Your task to perform on an android device: Go to location settings Image 0: 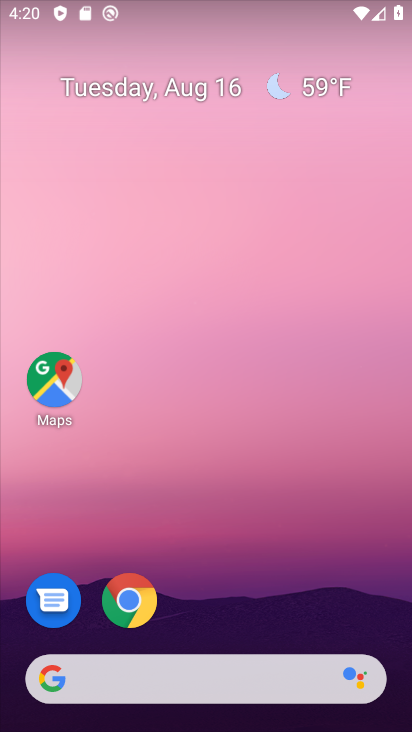
Step 0: drag from (210, 640) to (339, 0)
Your task to perform on an android device: Go to location settings Image 1: 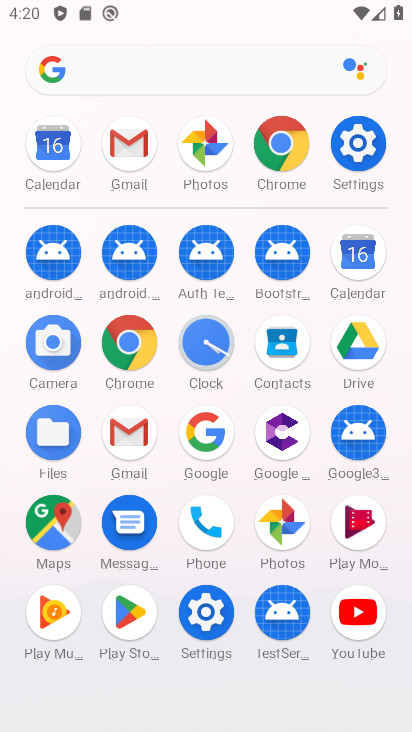
Step 1: click (214, 631)
Your task to perform on an android device: Go to location settings Image 2: 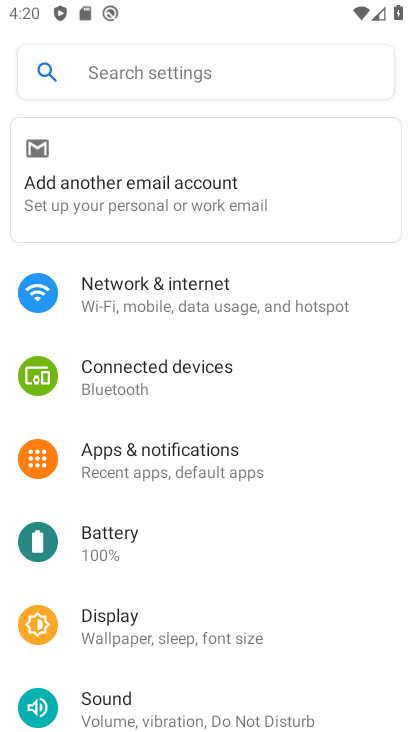
Step 2: drag from (163, 631) to (171, 287)
Your task to perform on an android device: Go to location settings Image 3: 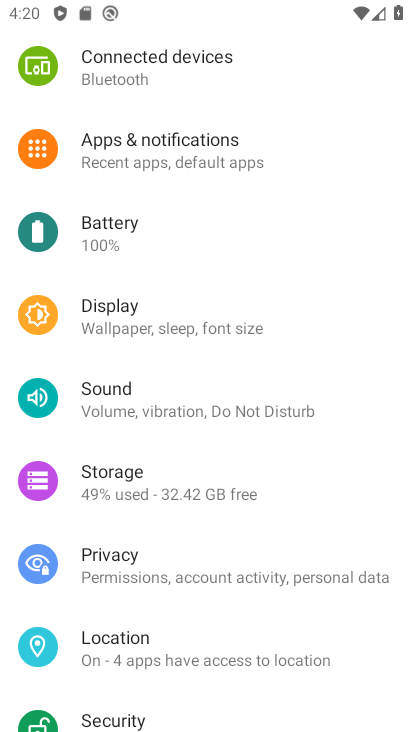
Step 3: click (153, 665)
Your task to perform on an android device: Go to location settings Image 4: 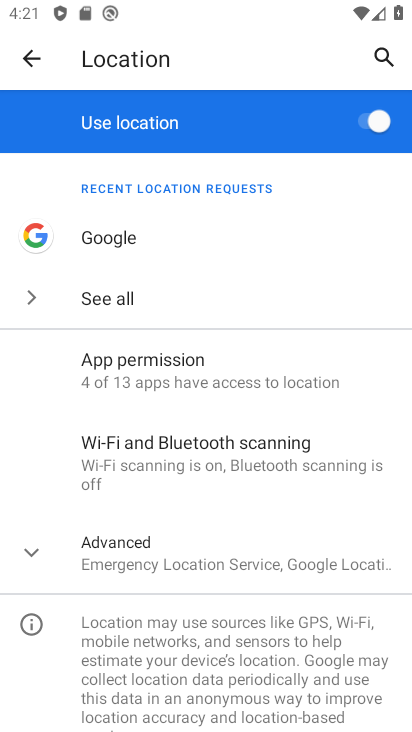
Step 4: task complete